Your task to perform on an android device: toggle notifications settings in the gmail app Image 0: 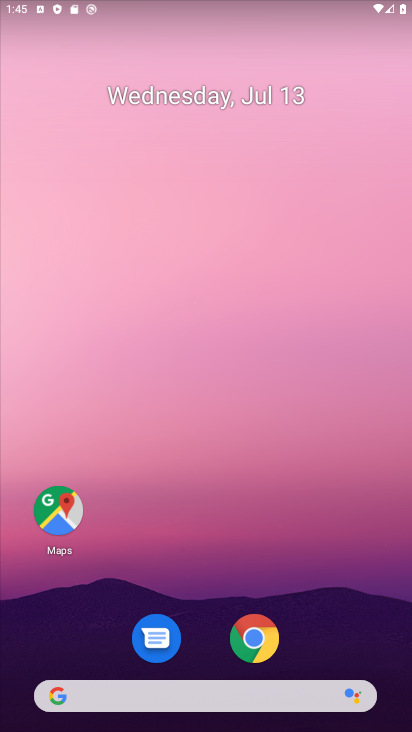
Step 0: drag from (184, 418) to (215, 130)
Your task to perform on an android device: toggle notifications settings in the gmail app Image 1: 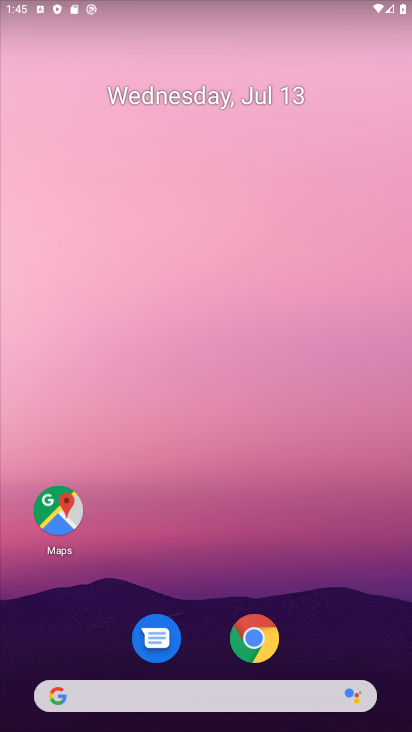
Step 1: drag from (239, 730) to (330, 0)
Your task to perform on an android device: toggle notifications settings in the gmail app Image 2: 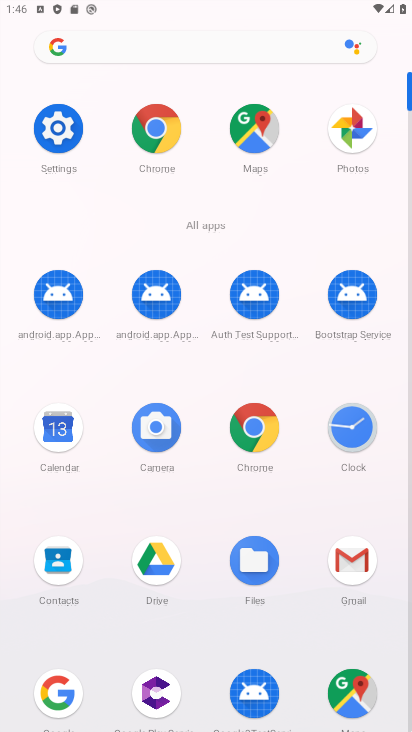
Step 2: click (350, 554)
Your task to perform on an android device: toggle notifications settings in the gmail app Image 3: 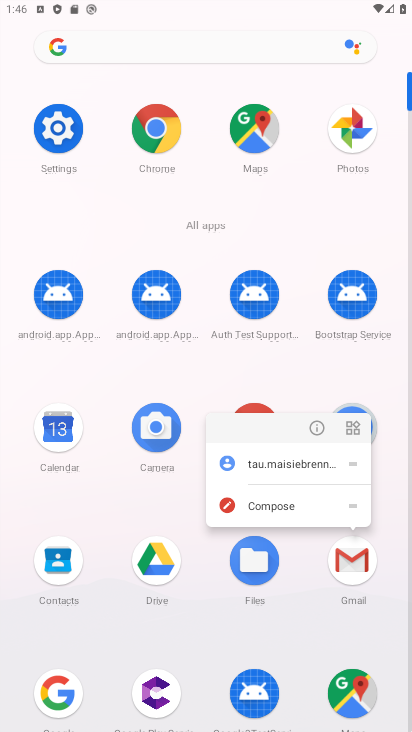
Step 3: click (314, 429)
Your task to perform on an android device: toggle notifications settings in the gmail app Image 4: 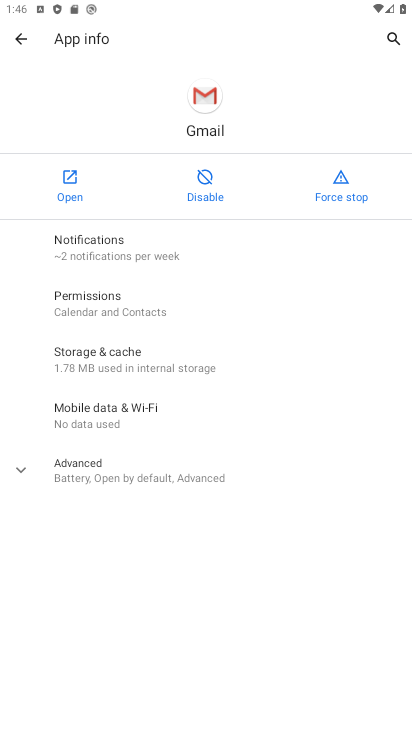
Step 4: click (218, 234)
Your task to perform on an android device: toggle notifications settings in the gmail app Image 5: 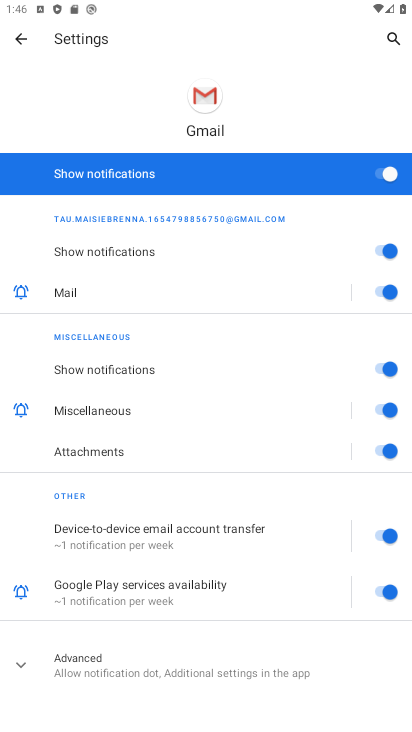
Step 5: click (378, 179)
Your task to perform on an android device: toggle notifications settings in the gmail app Image 6: 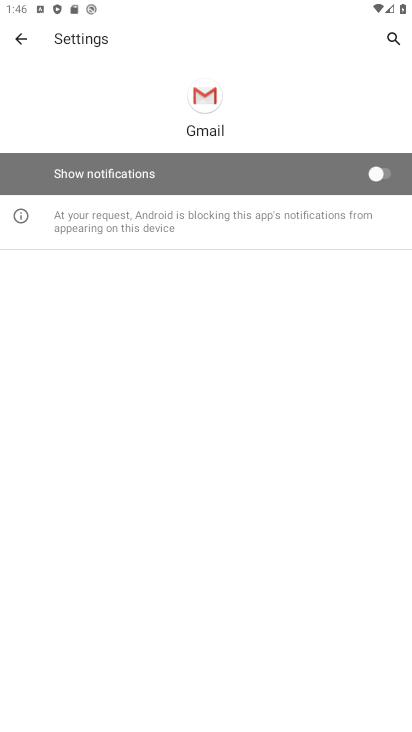
Step 6: task complete